Your task to perform on an android device: clear history in the chrome app Image 0: 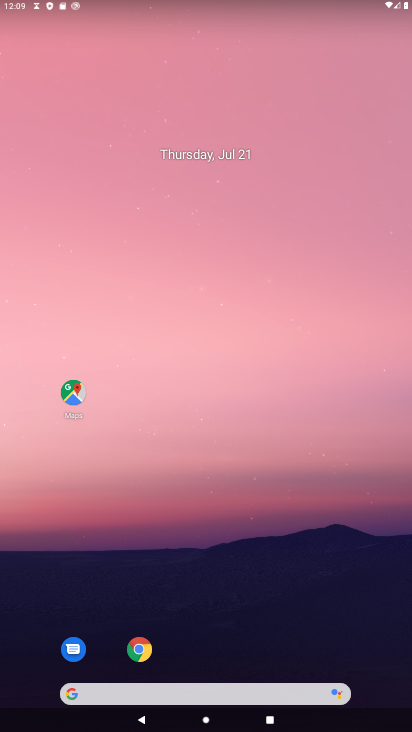
Step 0: drag from (232, 728) to (208, 328)
Your task to perform on an android device: clear history in the chrome app Image 1: 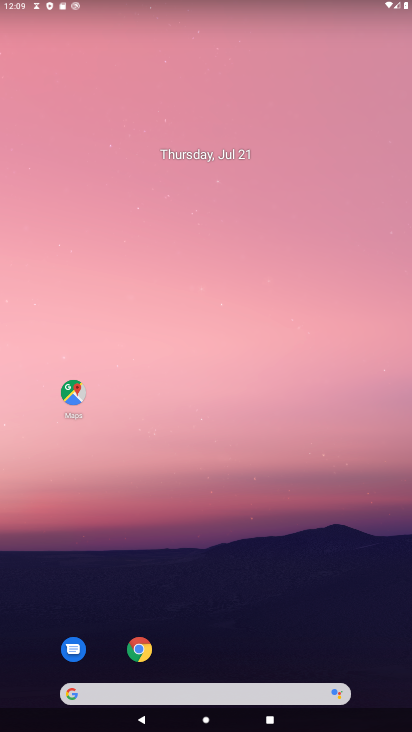
Step 1: drag from (220, 724) to (266, 89)
Your task to perform on an android device: clear history in the chrome app Image 2: 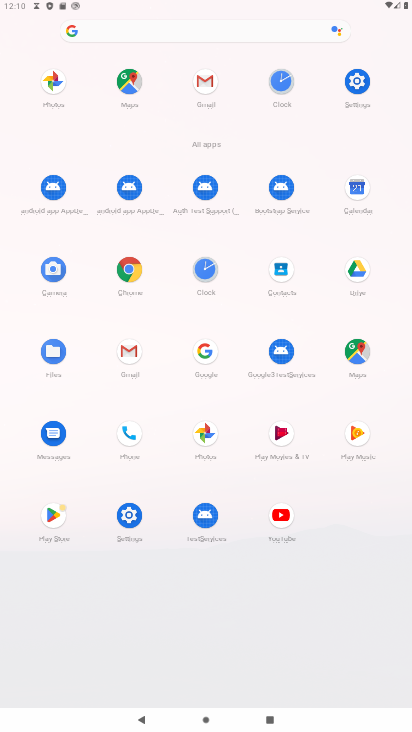
Step 2: click (128, 264)
Your task to perform on an android device: clear history in the chrome app Image 3: 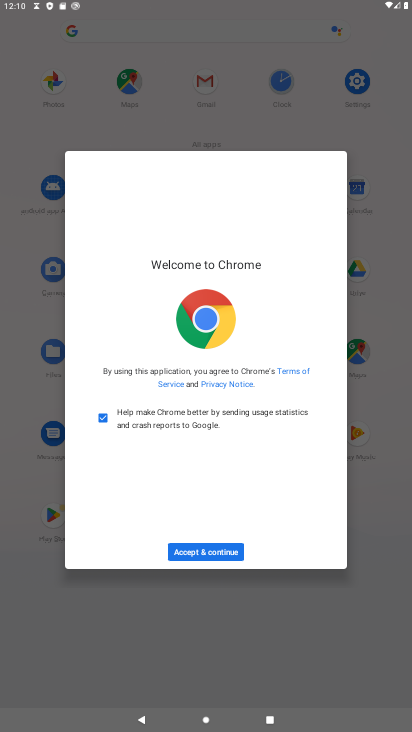
Step 3: click (193, 547)
Your task to perform on an android device: clear history in the chrome app Image 4: 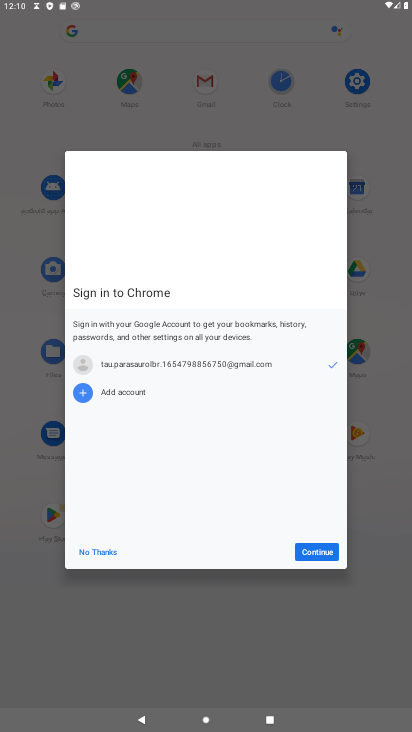
Step 4: click (309, 551)
Your task to perform on an android device: clear history in the chrome app Image 5: 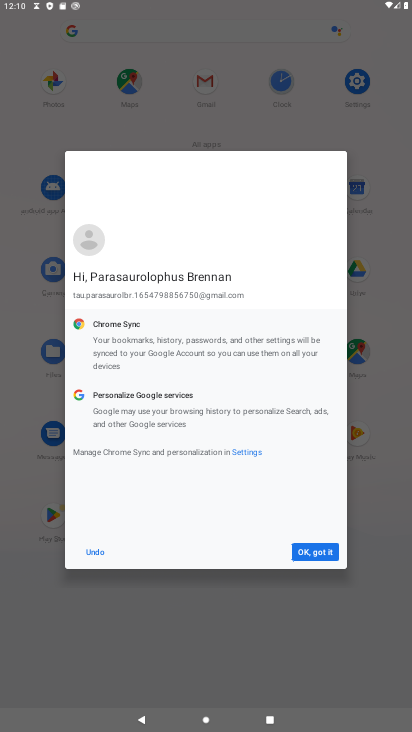
Step 5: click (309, 551)
Your task to perform on an android device: clear history in the chrome app Image 6: 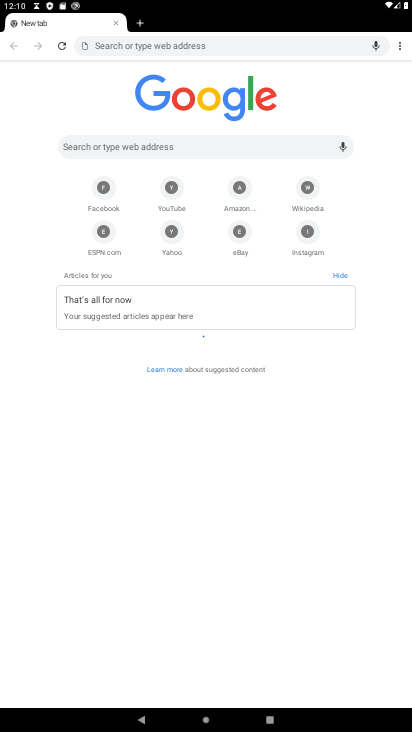
Step 6: click (401, 51)
Your task to perform on an android device: clear history in the chrome app Image 7: 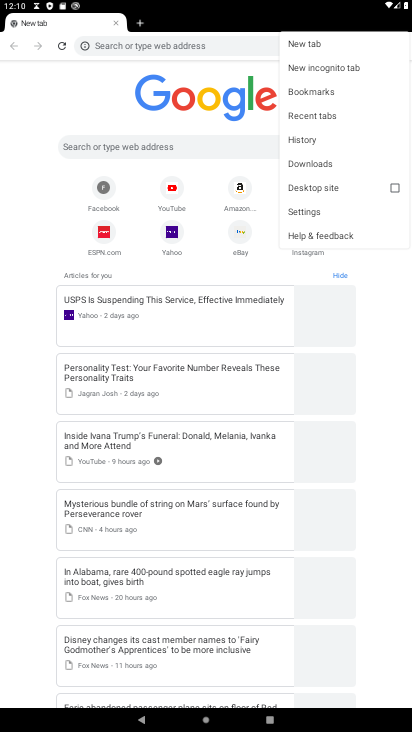
Step 7: click (304, 137)
Your task to perform on an android device: clear history in the chrome app Image 8: 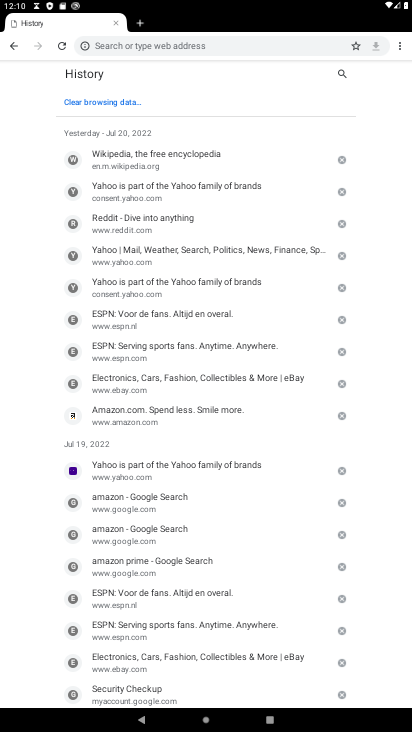
Step 8: click (118, 102)
Your task to perform on an android device: clear history in the chrome app Image 9: 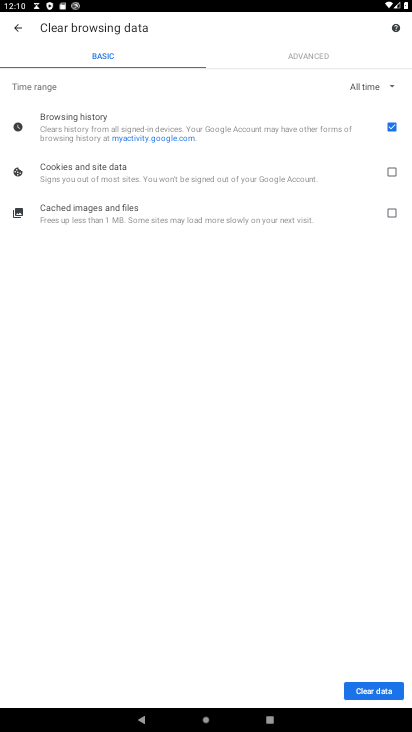
Step 9: click (375, 691)
Your task to perform on an android device: clear history in the chrome app Image 10: 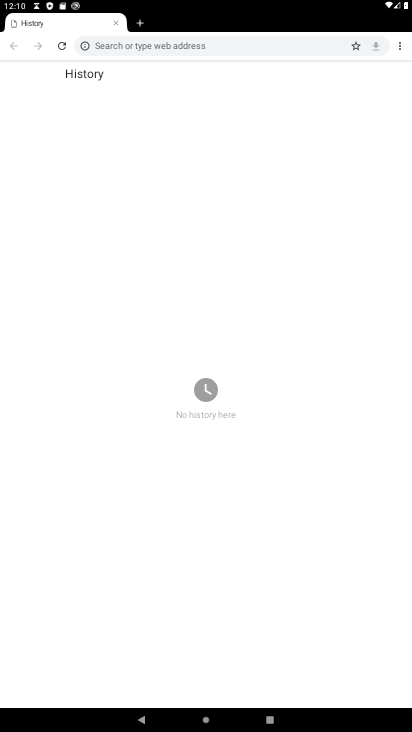
Step 10: task complete